Your task to perform on an android device: Go to Android settings Image 0: 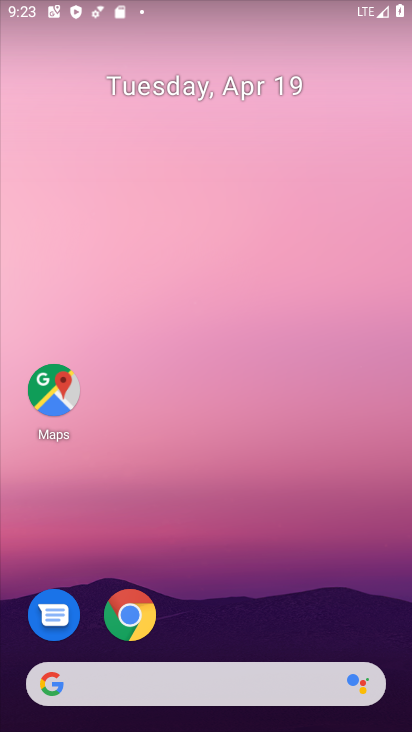
Step 0: drag from (317, 9) to (296, 600)
Your task to perform on an android device: Go to Android settings Image 1: 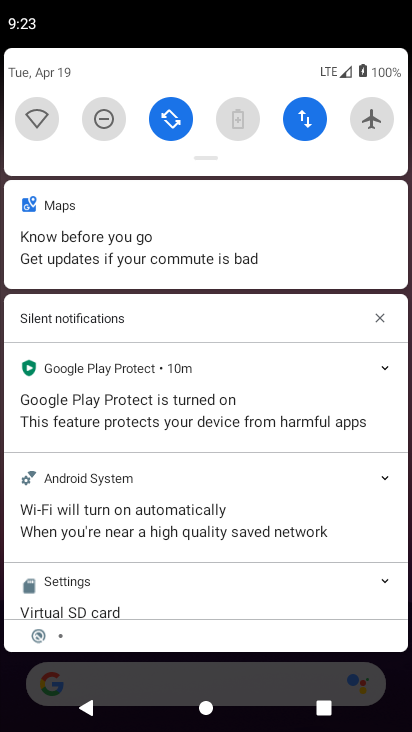
Step 1: drag from (193, 87) to (228, 724)
Your task to perform on an android device: Go to Android settings Image 2: 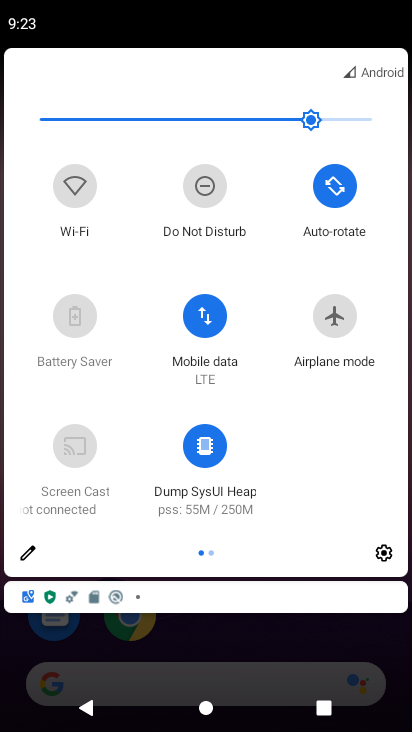
Step 2: click (386, 567)
Your task to perform on an android device: Go to Android settings Image 3: 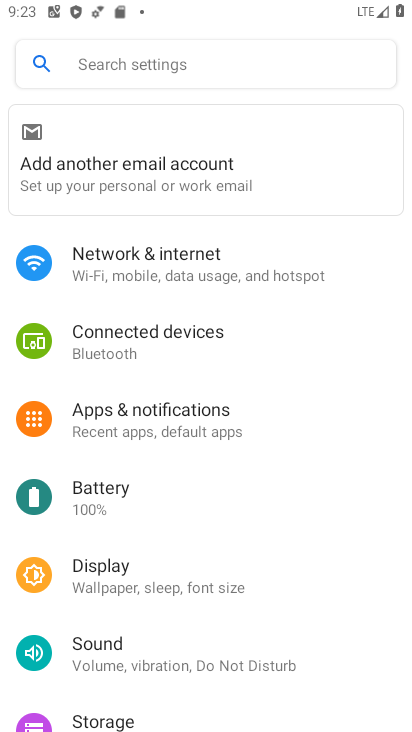
Step 3: drag from (156, 675) to (230, 150)
Your task to perform on an android device: Go to Android settings Image 4: 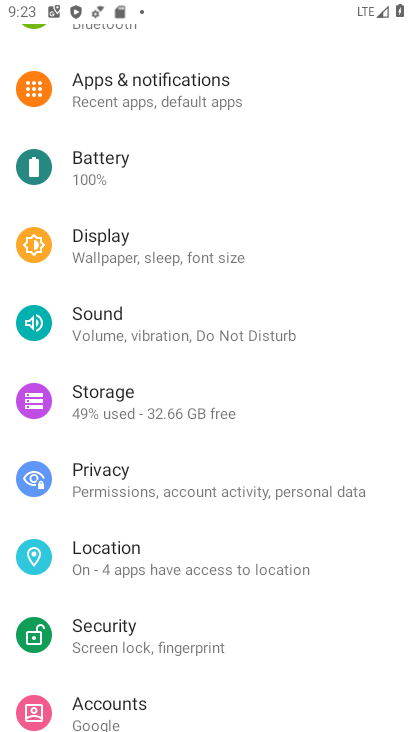
Step 4: drag from (217, 613) to (246, 24)
Your task to perform on an android device: Go to Android settings Image 5: 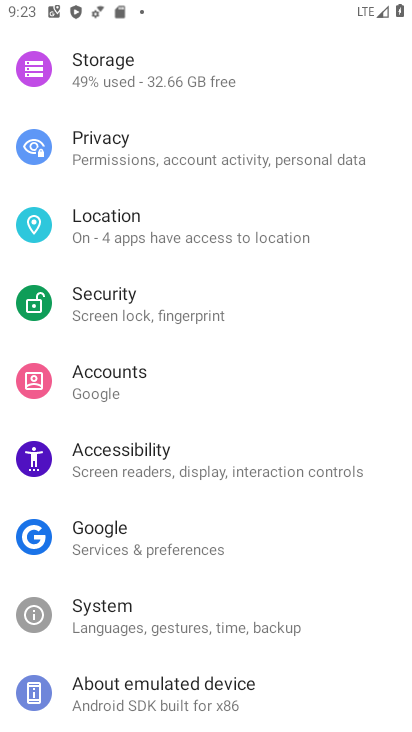
Step 5: drag from (149, 644) to (189, 86)
Your task to perform on an android device: Go to Android settings Image 6: 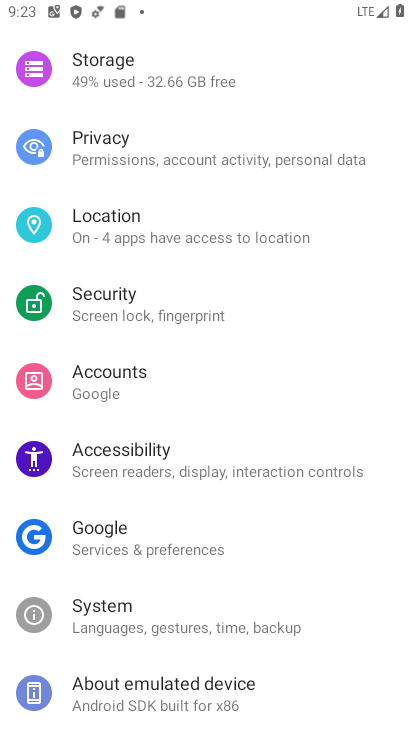
Step 6: click (161, 692)
Your task to perform on an android device: Go to Android settings Image 7: 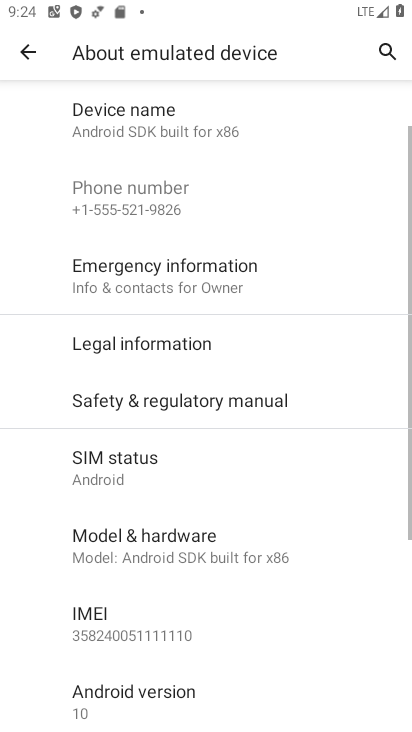
Step 7: click (232, 693)
Your task to perform on an android device: Go to Android settings Image 8: 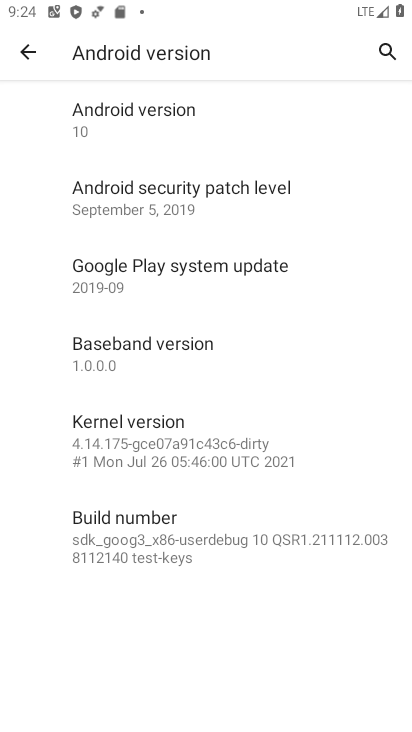
Step 8: task complete